Your task to perform on an android device: turn off translation in the chrome app Image 0: 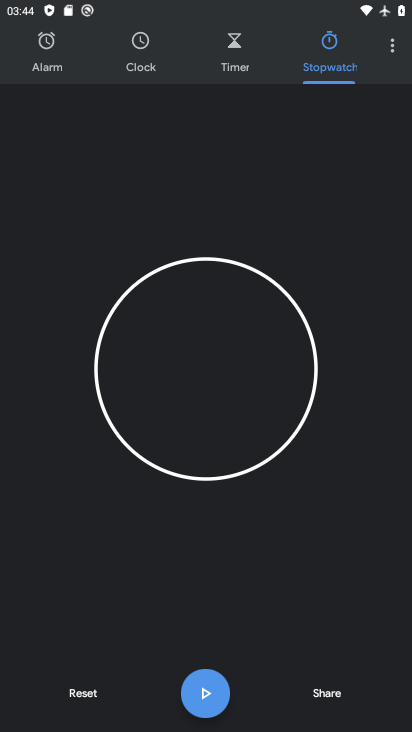
Step 0: press back button
Your task to perform on an android device: turn off translation in the chrome app Image 1: 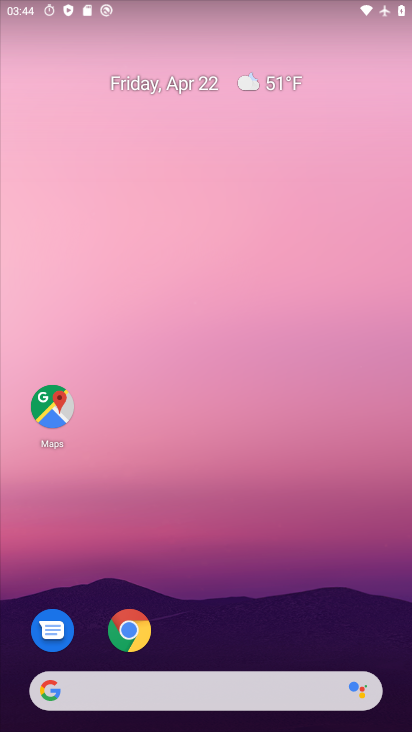
Step 1: drag from (246, 592) to (226, 2)
Your task to perform on an android device: turn off translation in the chrome app Image 2: 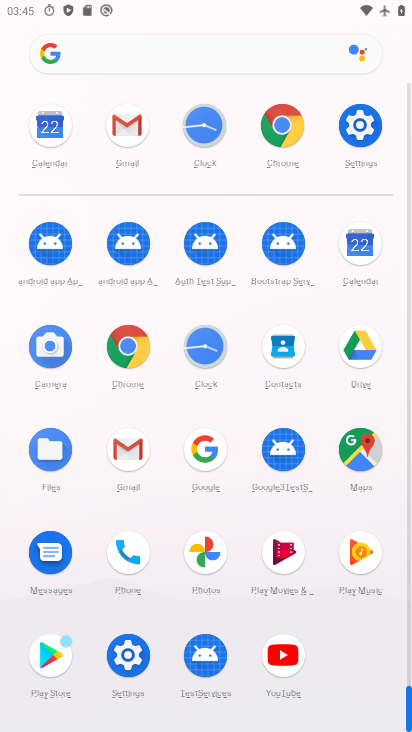
Step 2: drag from (0, 531) to (3, 299)
Your task to perform on an android device: turn off translation in the chrome app Image 3: 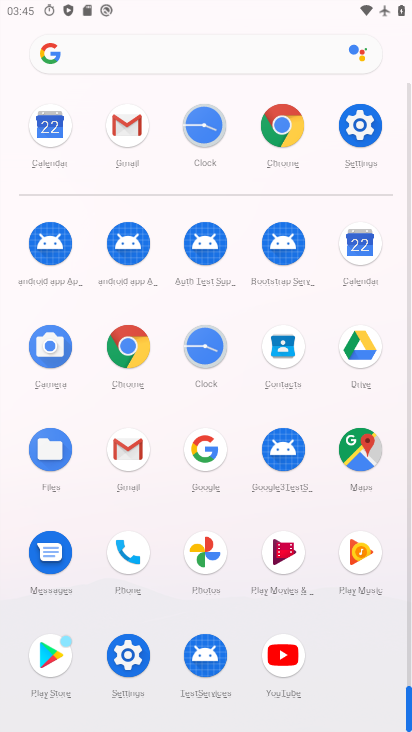
Step 3: click (128, 342)
Your task to perform on an android device: turn off translation in the chrome app Image 4: 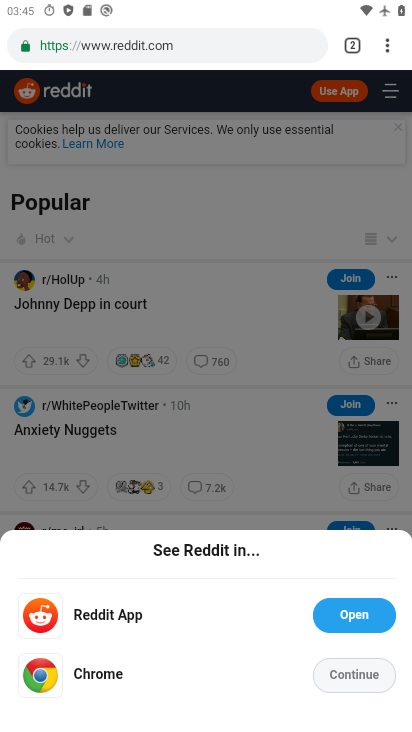
Step 4: drag from (382, 49) to (236, 542)
Your task to perform on an android device: turn off translation in the chrome app Image 5: 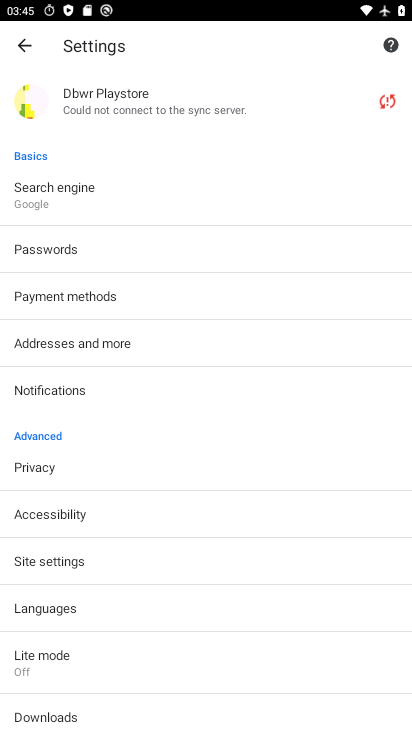
Step 5: drag from (209, 626) to (231, 287)
Your task to perform on an android device: turn off translation in the chrome app Image 6: 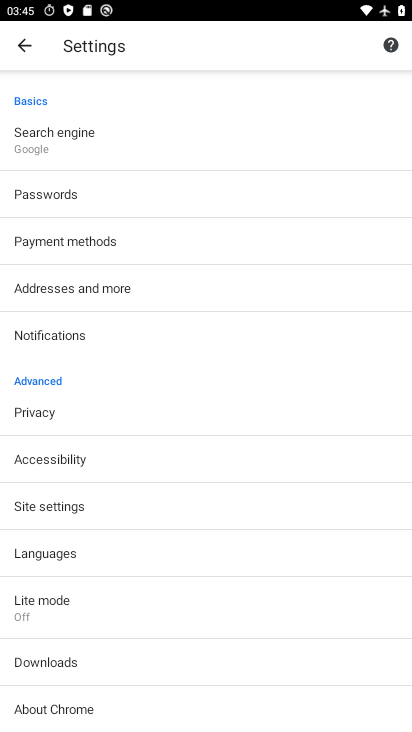
Step 6: click (90, 556)
Your task to perform on an android device: turn off translation in the chrome app Image 7: 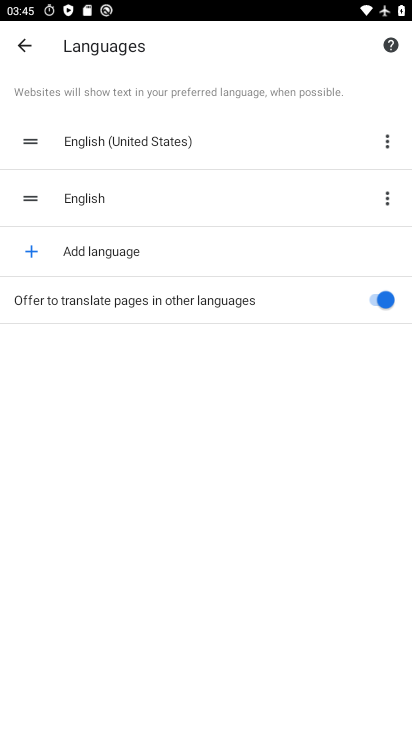
Step 7: click (382, 285)
Your task to perform on an android device: turn off translation in the chrome app Image 8: 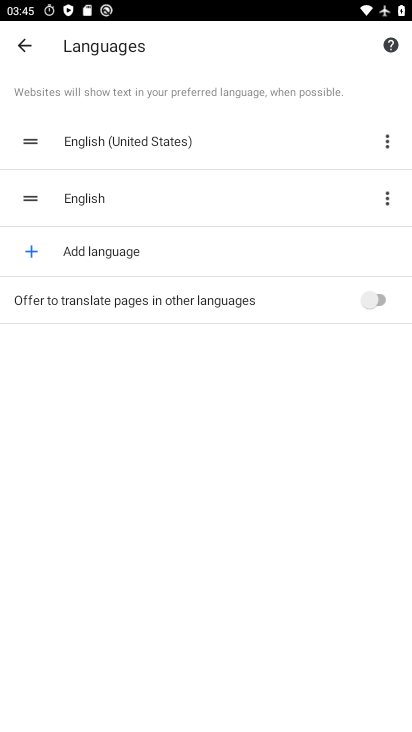
Step 8: task complete